Your task to perform on an android device: add a label to a message in the gmail app Image 0: 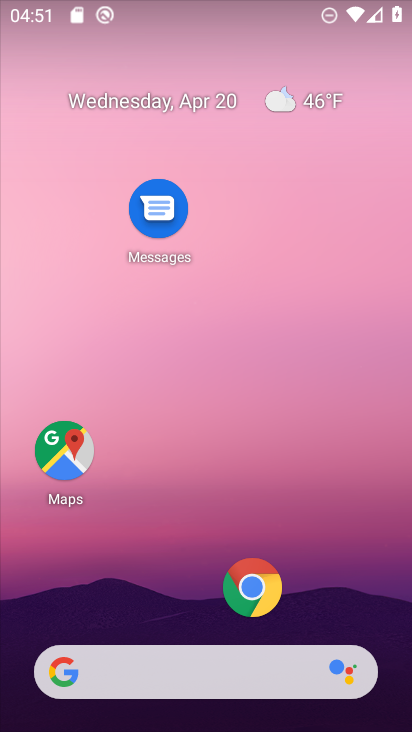
Step 0: drag from (195, 304) to (203, 224)
Your task to perform on an android device: add a label to a message in the gmail app Image 1: 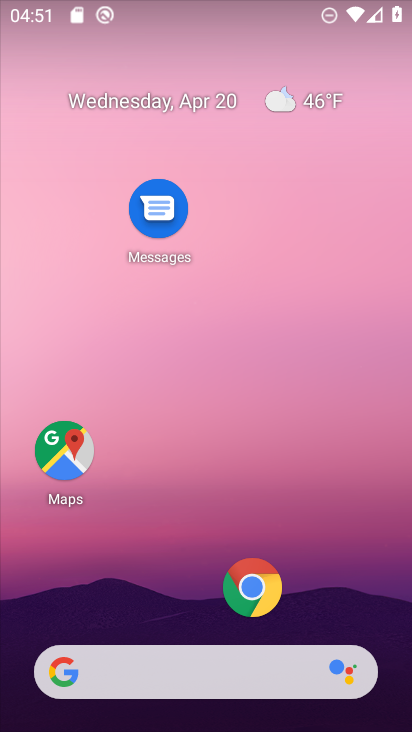
Step 1: drag from (229, 371) to (280, 167)
Your task to perform on an android device: add a label to a message in the gmail app Image 2: 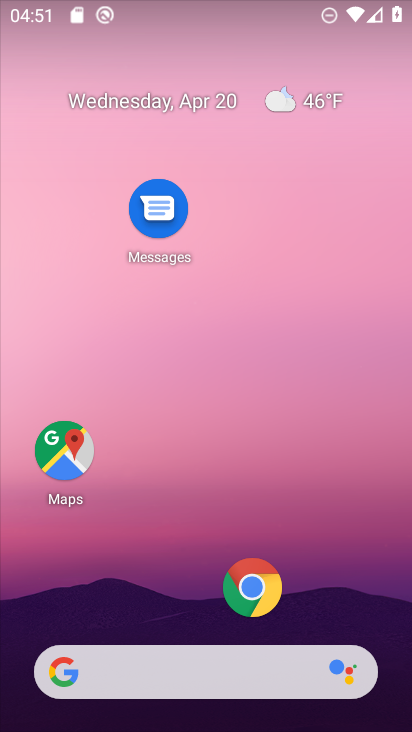
Step 2: drag from (232, 295) to (251, 113)
Your task to perform on an android device: add a label to a message in the gmail app Image 3: 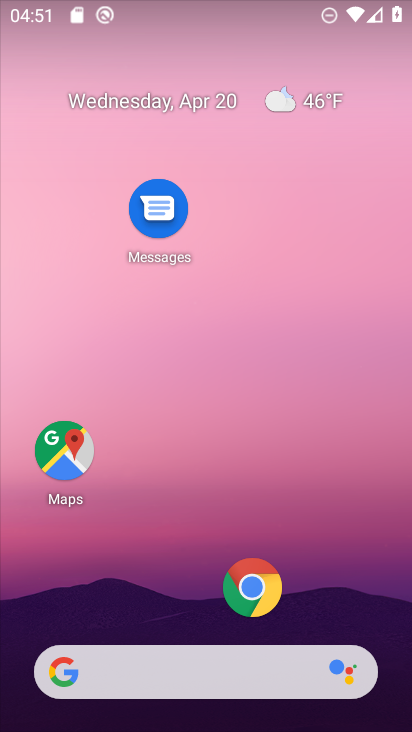
Step 3: drag from (200, 632) to (200, 170)
Your task to perform on an android device: add a label to a message in the gmail app Image 4: 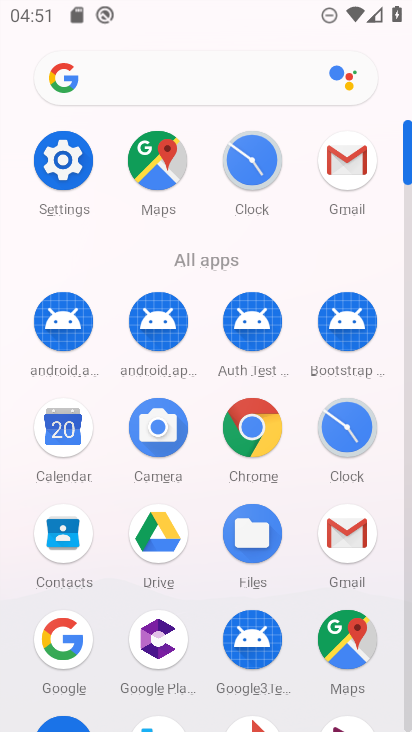
Step 4: click (338, 178)
Your task to perform on an android device: add a label to a message in the gmail app Image 5: 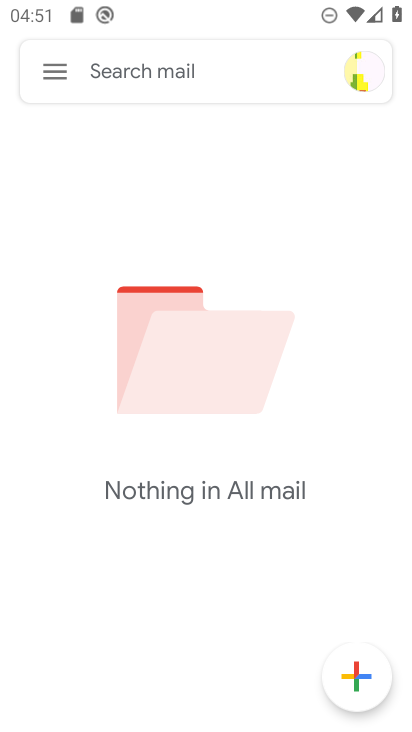
Step 5: click (61, 81)
Your task to perform on an android device: add a label to a message in the gmail app Image 6: 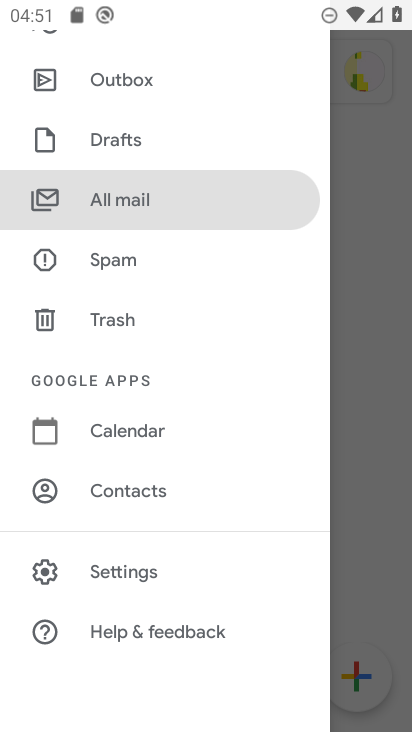
Step 6: click (129, 216)
Your task to perform on an android device: add a label to a message in the gmail app Image 7: 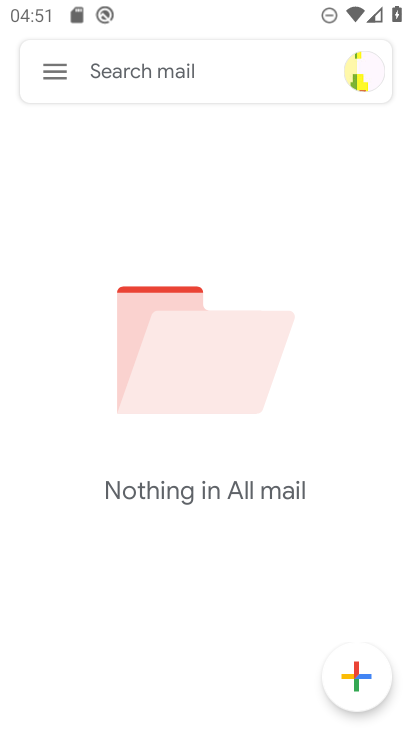
Step 7: task complete